Your task to perform on an android device: change the clock display to analog Image 0: 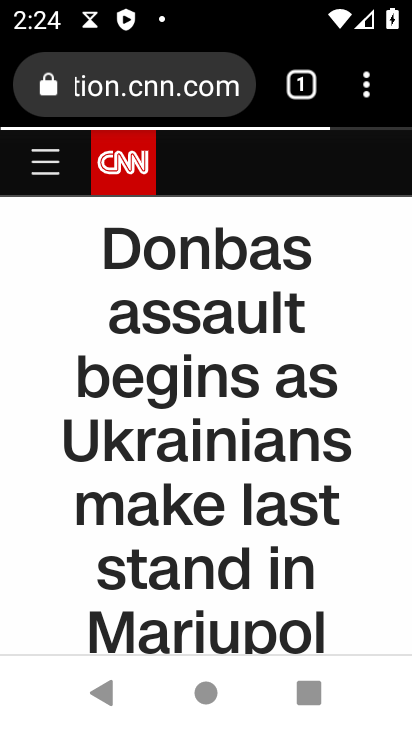
Step 0: press back button
Your task to perform on an android device: change the clock display to analog Image 1: 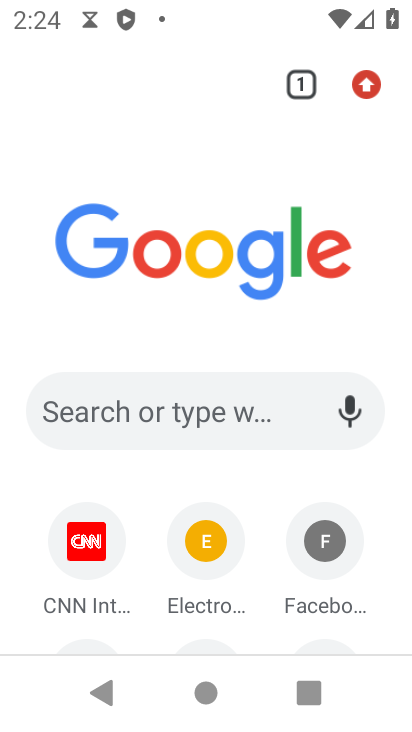
Step 1: press back button
Your task to perform on an android device: change the clock display to analog Image 2: 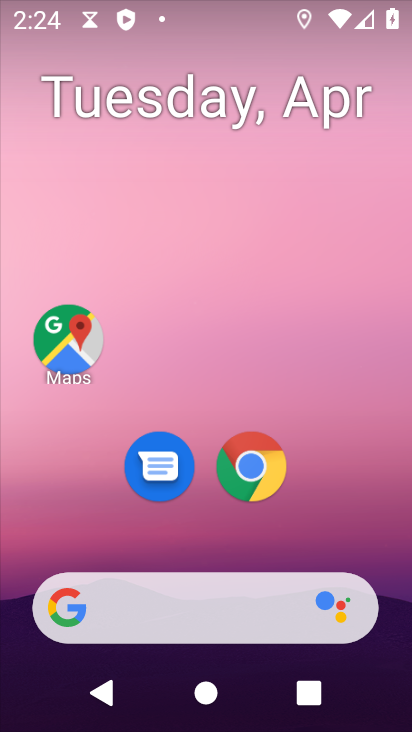
Step 2: drag from (382, 522) to (348, 72)
Your task to perform on an android device: change the clock display to analog Image 3: 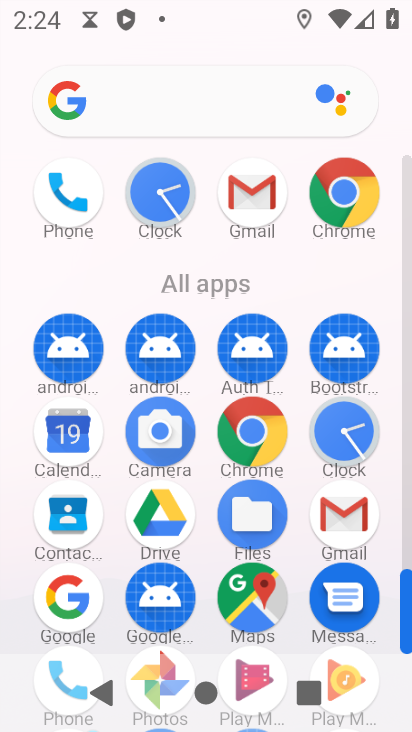
Step 3: click (343, 425)
Your task to perform on an android device: change the clock display to analog Image 4: 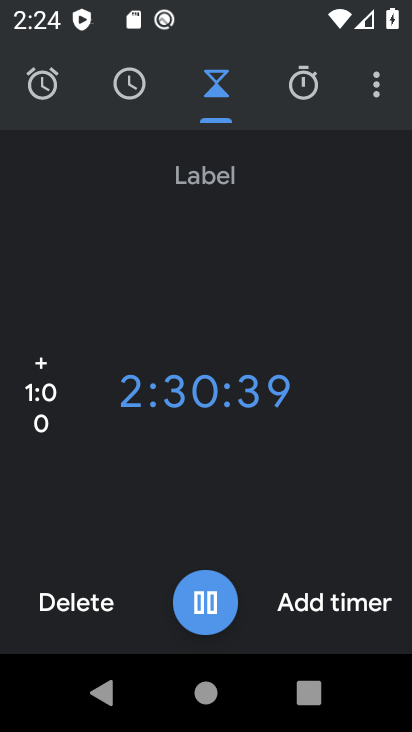
Step 4: click (374, 85)
Your task to perform on an android device: change the clock display to analog Image 5: 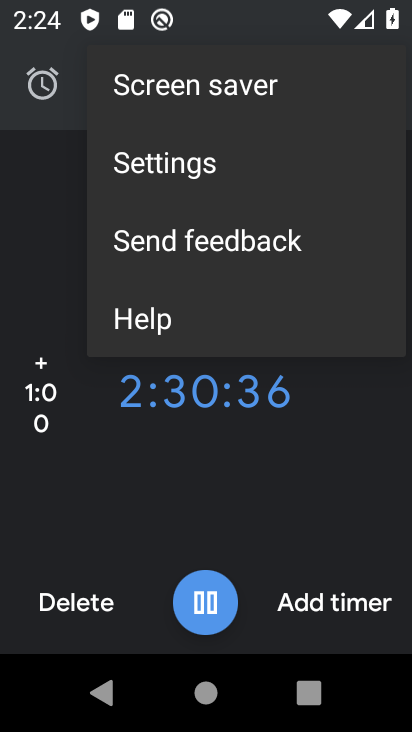
Step 5: click (217, 159)
Your task to perform on an android device: change the clock display to analog Image 6: 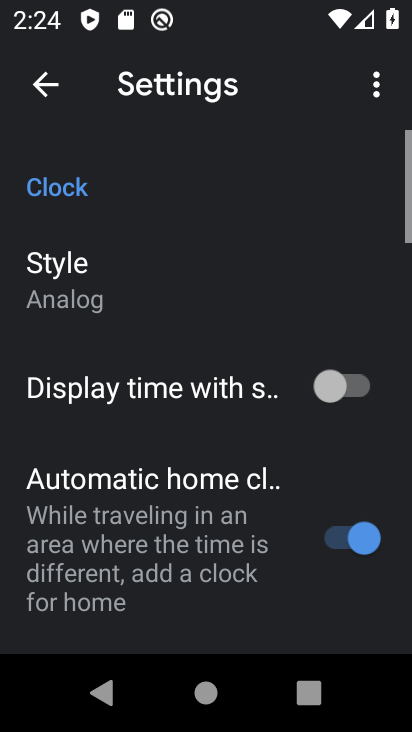
Step 6: click (115, 274)
Your task to perform on an android device: change the clock display to analog Image 7: 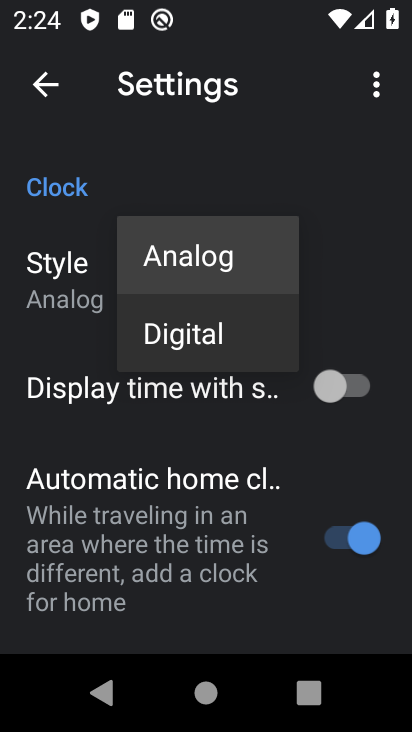
Step 7: click (224, 257)
Your task to perform on an android device: change the clock display to analog Image 8: 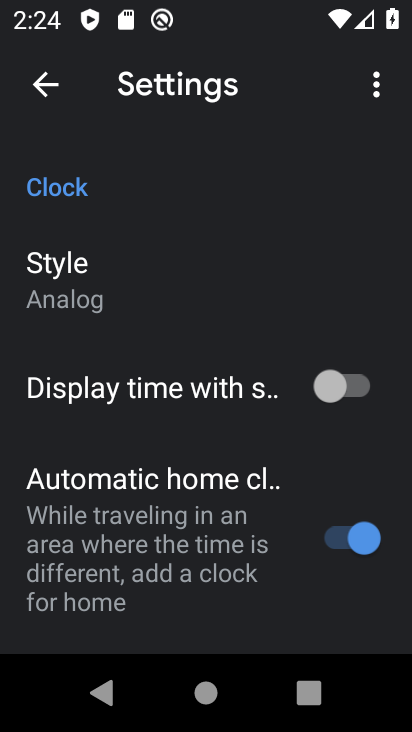
Step 8: task complete